Your task to perform on an android device: Do I have any events today? Image 0: 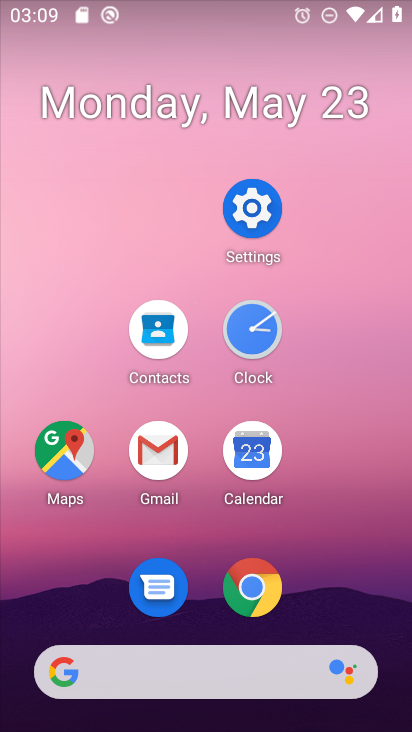
Step 0: click (246, 452)
Your task to perform on an android device: Do I have any events today? Image 1: 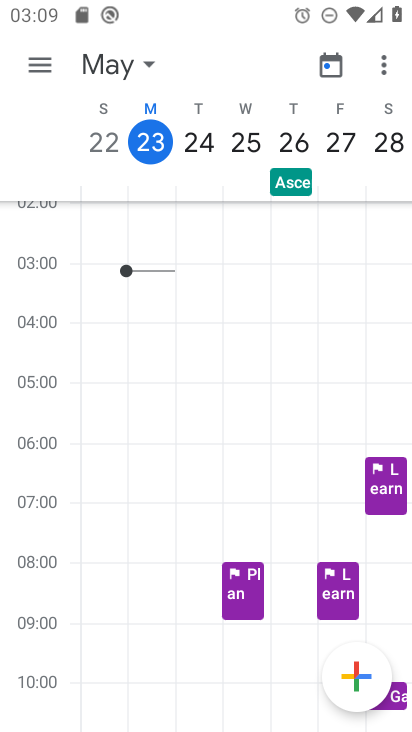
Step 1: task complete